Your task to perform on an android device: Open CNN.com Image 0: 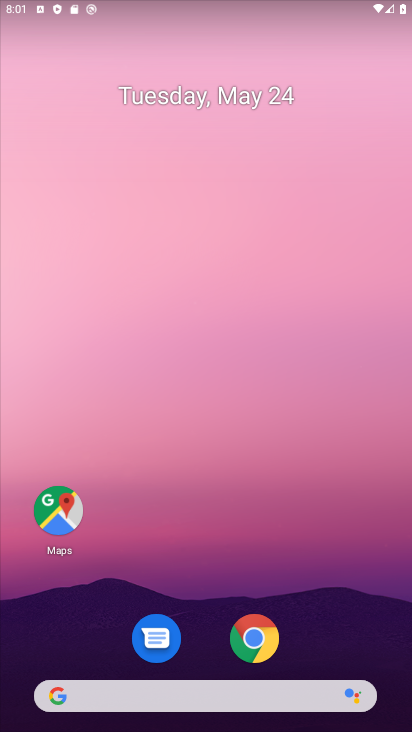
Step 0: click (109, 701)
Your task to perform on an android device: Open CNN.com Image 1: 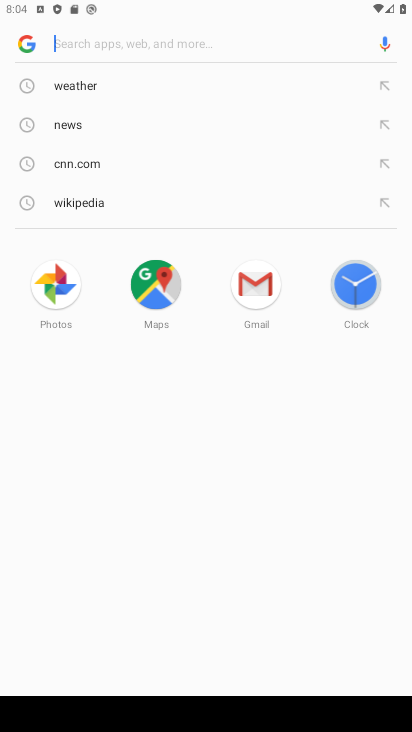
Step 1: click (202, 50)
Your task to perform on an android device: Open CNN.com Image 2: 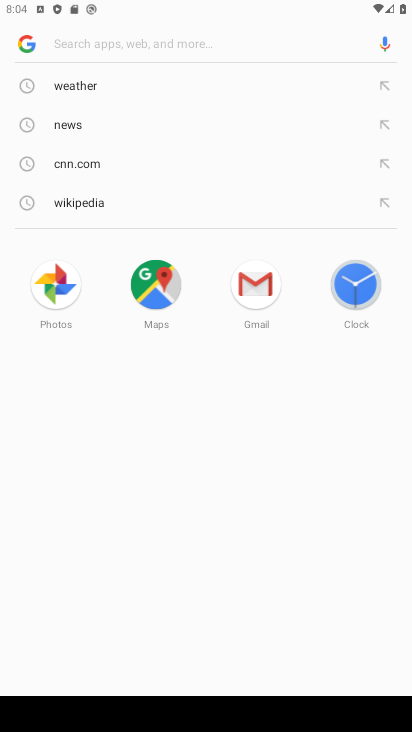
Step 2: type "cnn.com"
Your task to perform on an android device: Open CNN.com Image 3: 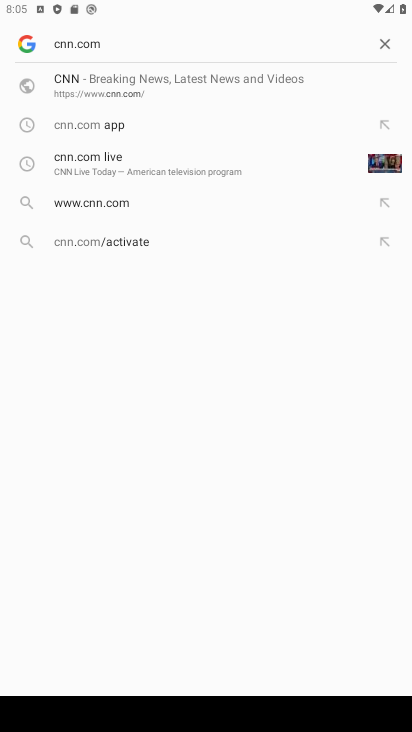
Step 3: click (214, 92)
Your task to perform on an android device: Open CNN.com Image 4: 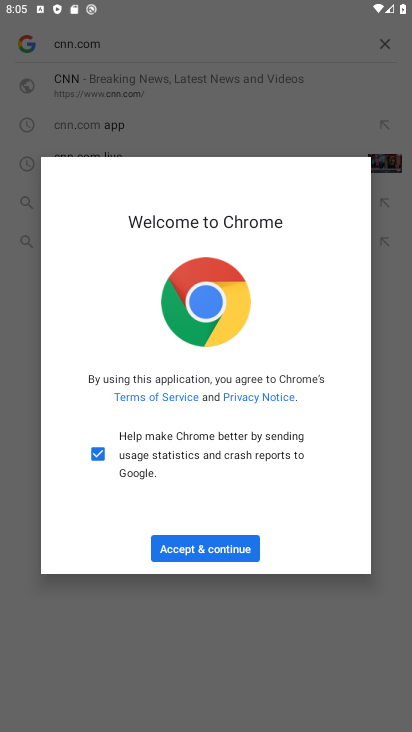
Step 4: click (183, 546)
Your task to perform on an android device: Open CNN.com Image 5: 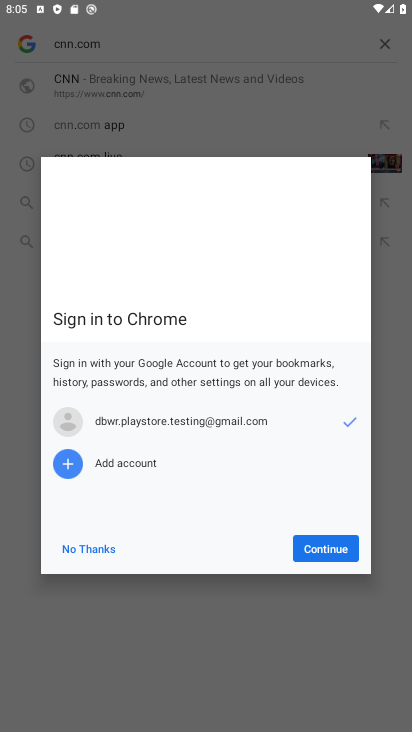
Step 5: click (315, 553)
Your task to perform on an android device: Open CNN.com Image 6: 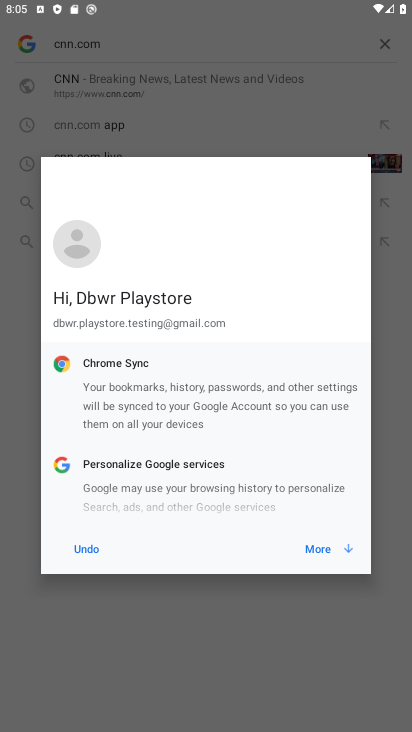
Step 6: click (324, 546)
Your task to perform on an android device: Open CNN.com Image 7: 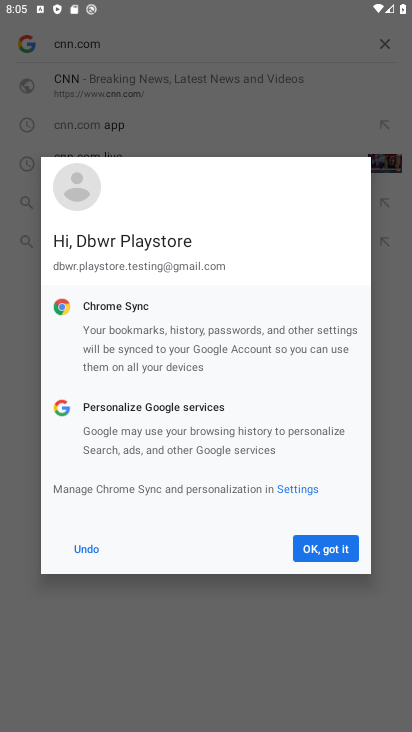
Step 7: click (324, 546)
Your task to perform on an android device: Open CNN.com Image 8: 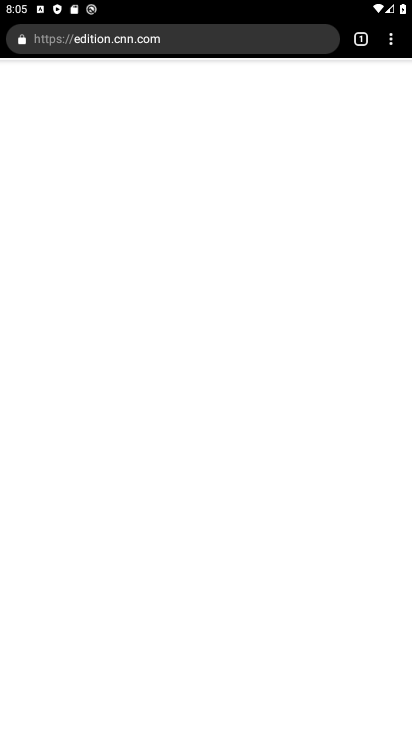
Step 8: task complete